Your task to perform on an android device: toggle improve location accuracy Image 0: 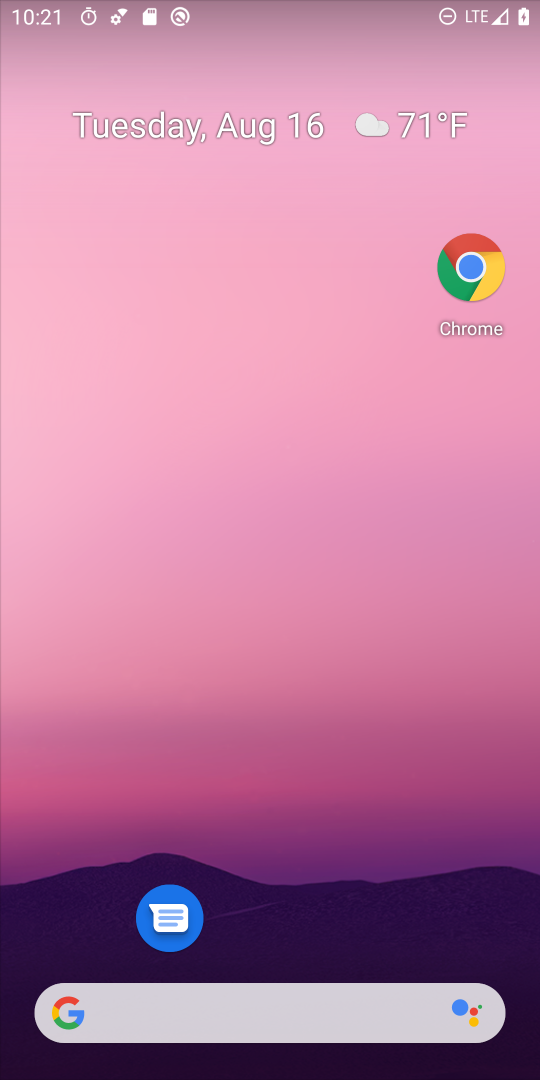
Step 0: drag from (266, 726) to (352, 193)
Your task to perform on an android device: toggle improve location accuracy Image 1: 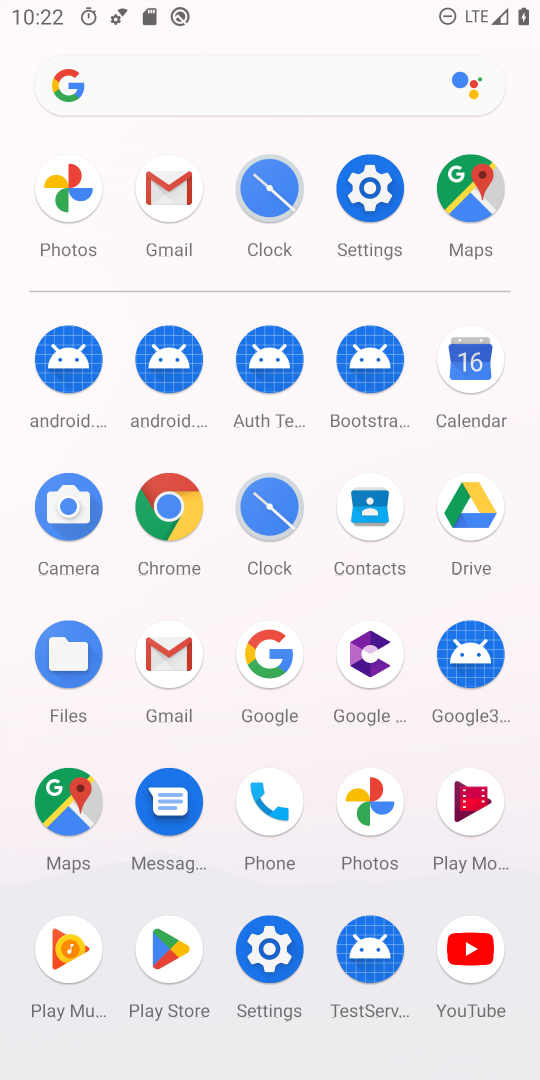
Step 1: click (386, 234)
Your task to perform on an android device: toggle improve location accuracy Image 2: 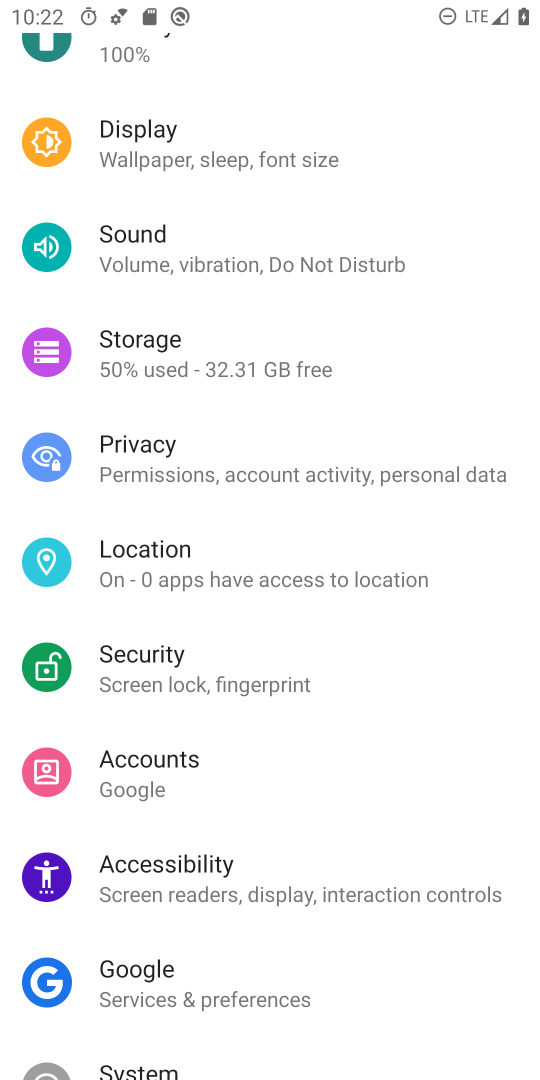
Step 2: click (221, 579)
Your task to perform on an android device: toggle improve location accuracy Image 3: 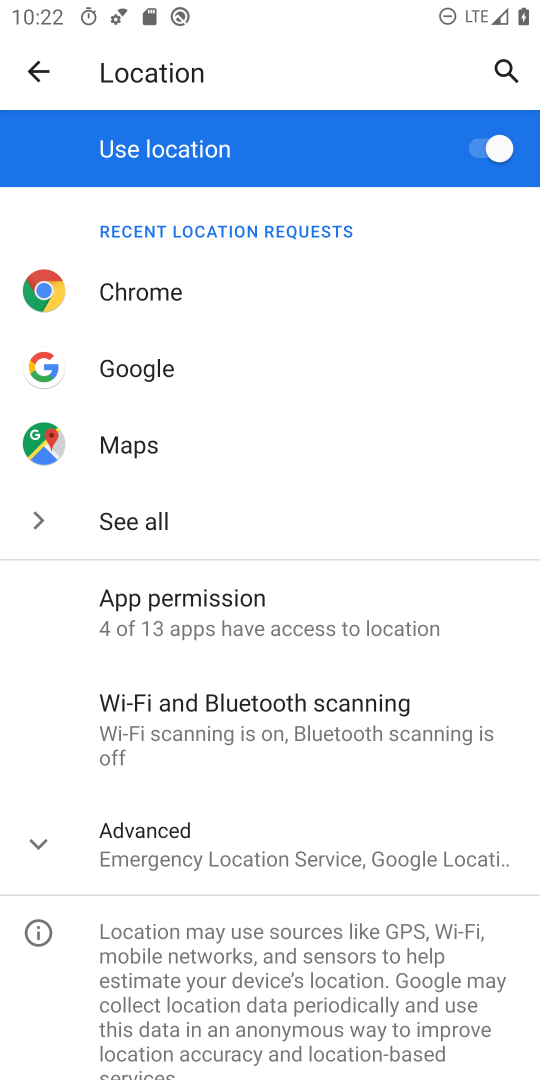
Step 3: click (204, 854)
Your task to perform on an android device: toggle improve location accuracy Image 4: 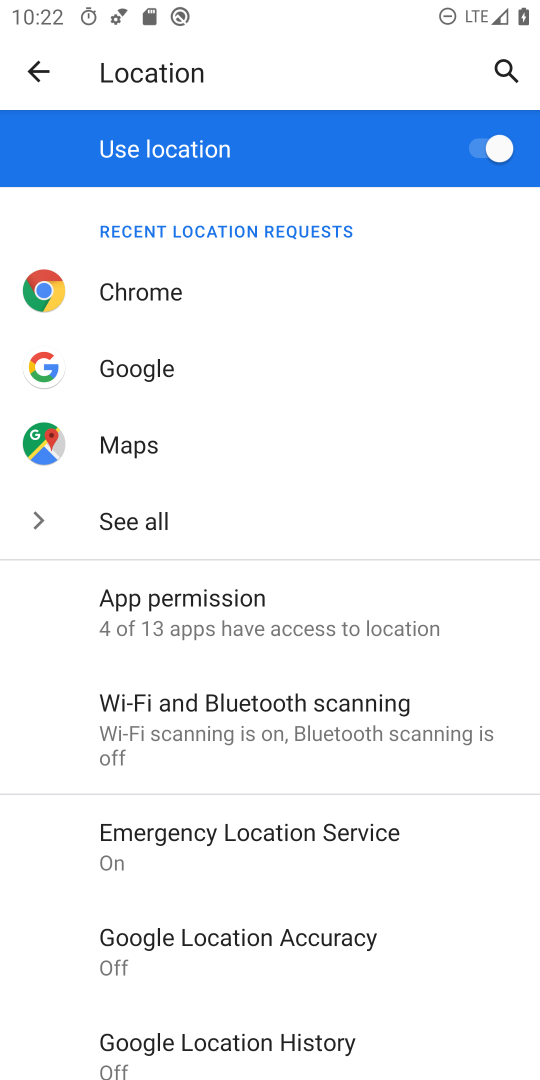
Step 4: click (269, 936)
Your task to perform on an android device: toggle improve location accuracy Image 5: 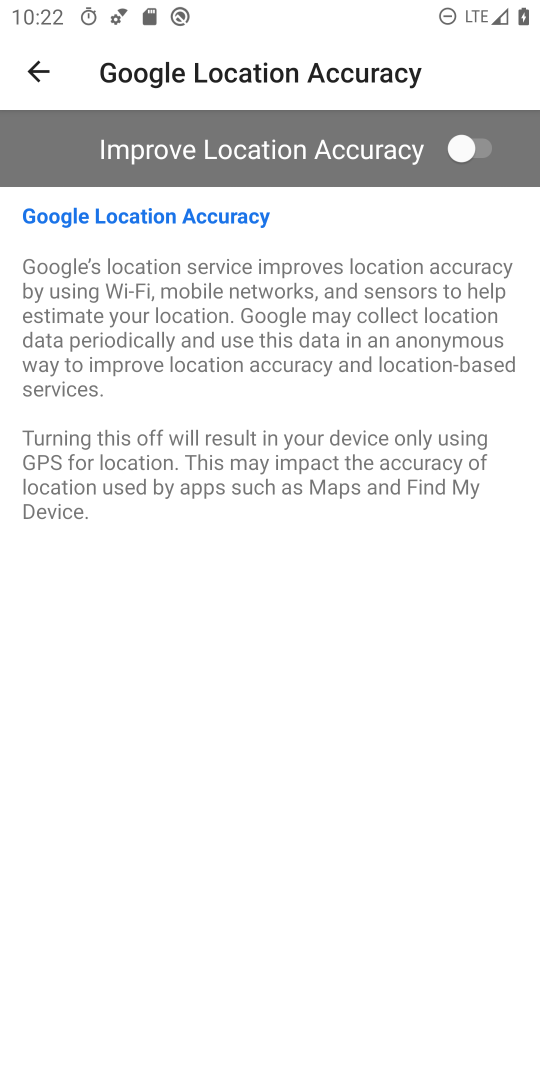
Step 5: click (479, 175)
Your task to perform on an android device: toggle improve location accuracy Image 6: 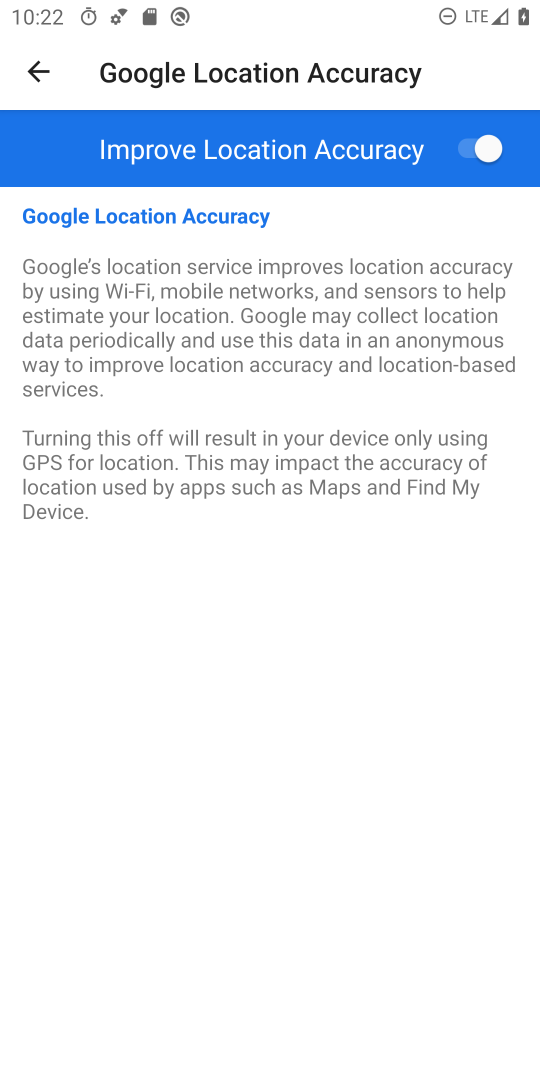
Step 6: task complete